Your task to perform on an android device: search for starred emails in the gmail app Image 0: 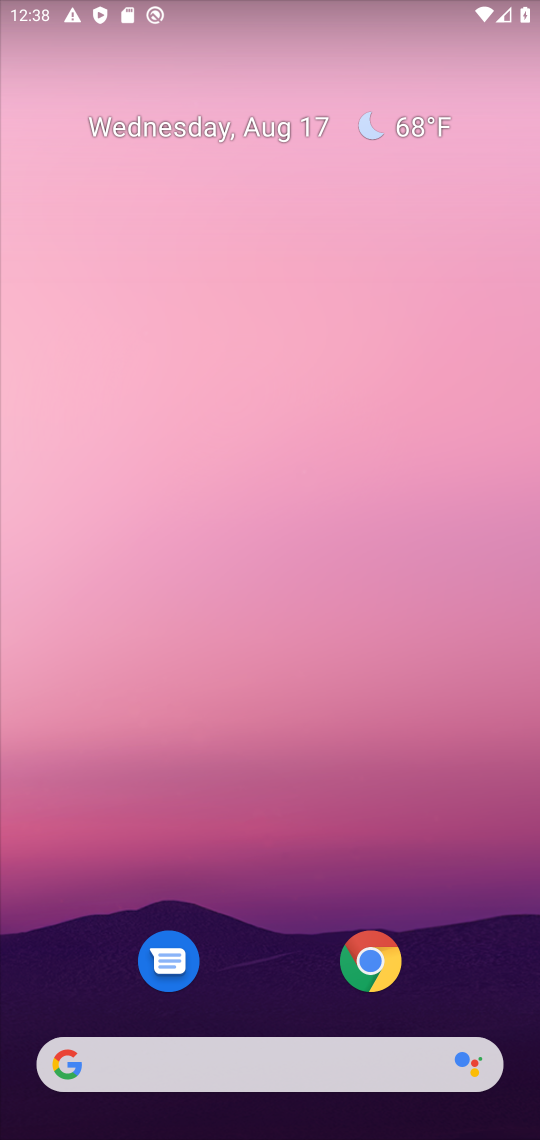
Step 0: drag from (323, 923) to (374, 335)
Your task to perform on an android device: search for starred emails in the gmail app Image 1: 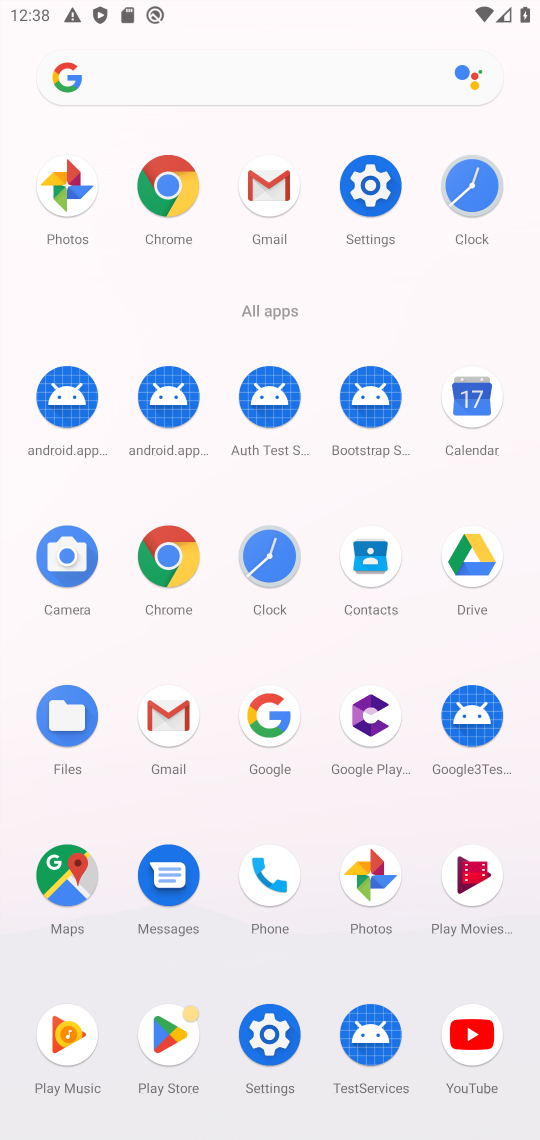
Step 1: click (190, 730)
Your task to perform on an android device: search for starred emails in the gmail app Image 2: 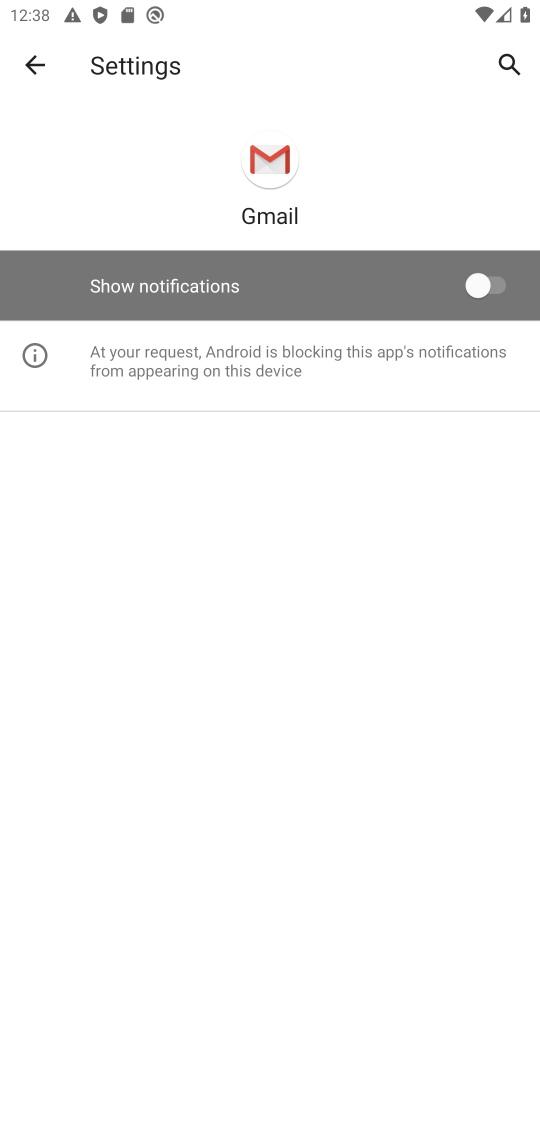
Step 2: click (35, 52)
Your task to perform on an android device: search for starred emails in the gmail app Image 3: 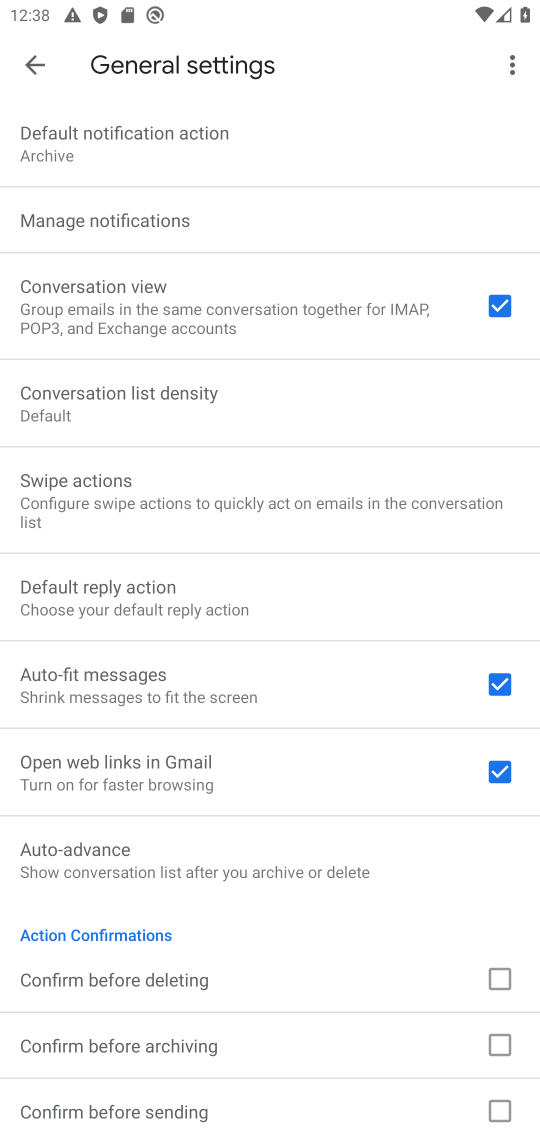
Step 3: drag from (246, 888) to (218, 601)
Your task to perform on an android device: search for starred emails in the gmail app Image 4: 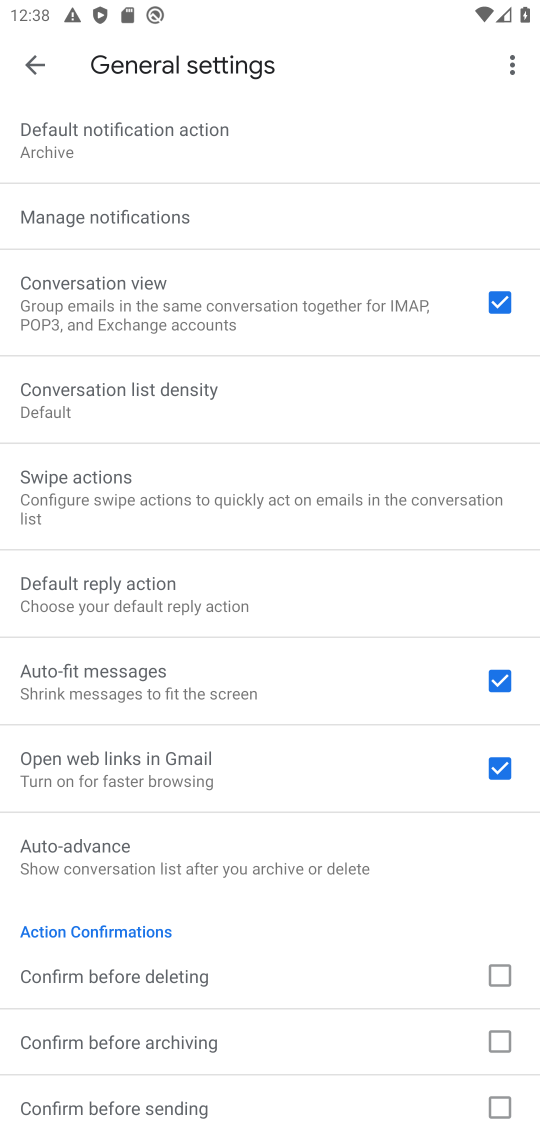
Step 4: click (36, 69)
Your task to perform on an android device: search for starred emails in the gmail app Image 5: 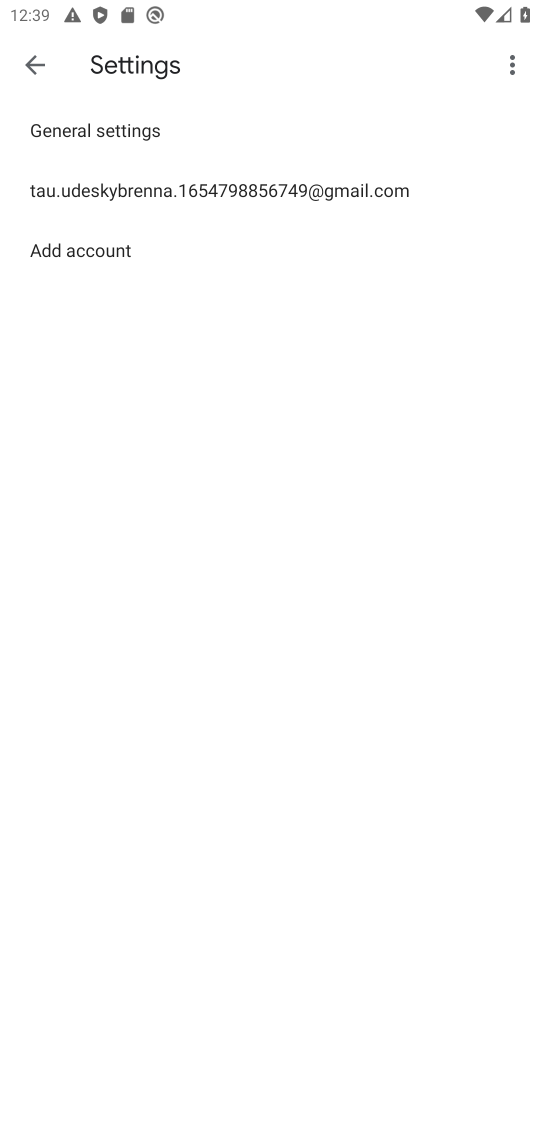
Step 5: click (29, 66)
Your task to perform on an android device: search for starred emails in the gmail app Image 6: 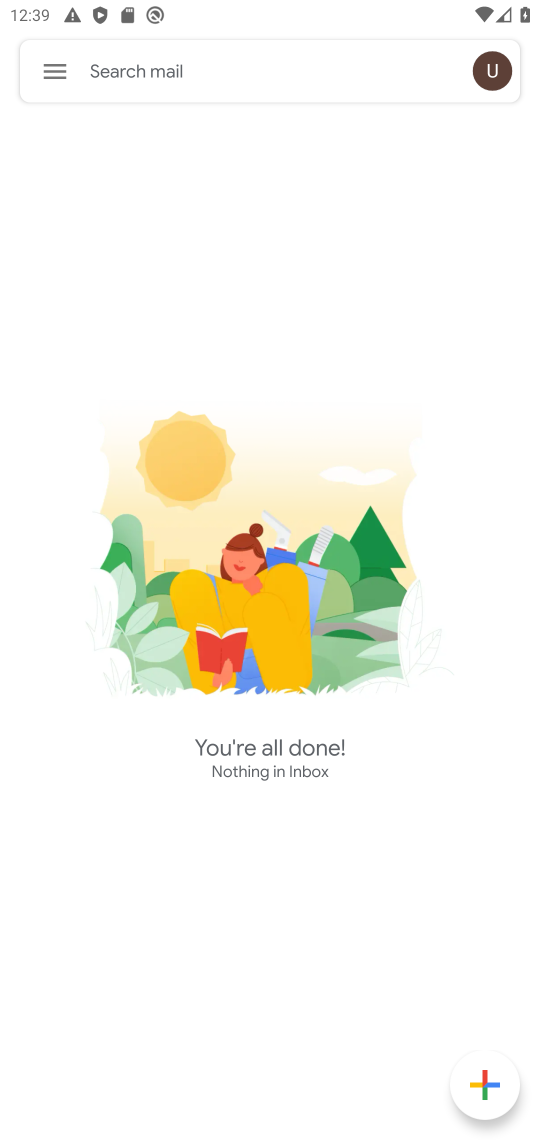
Step 6: click (63, 78)
Your task to perform on an android device: search for starred emails in the gmail app Image 7: 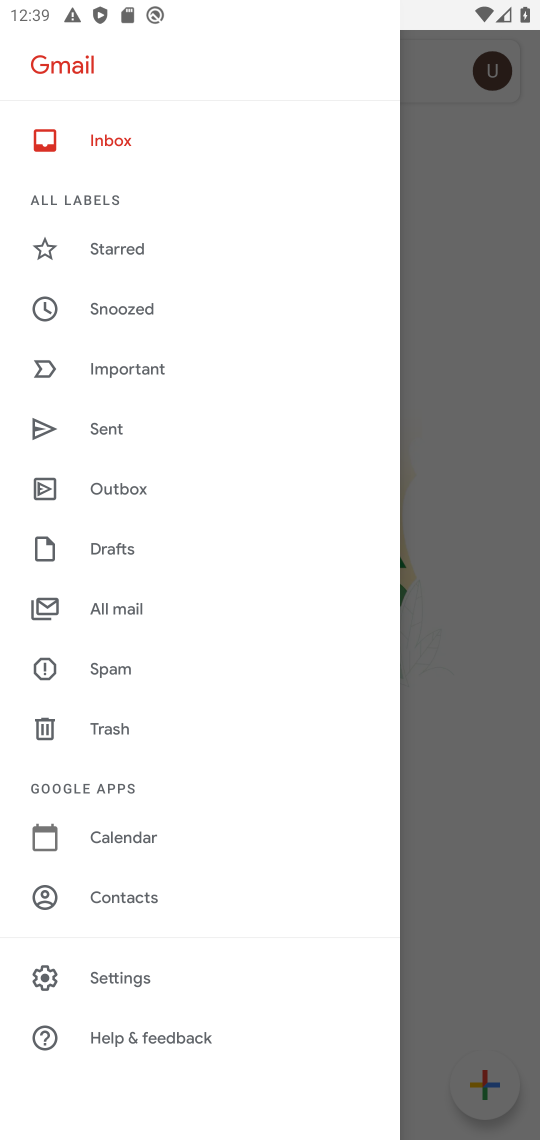
Step 7: click (157, 594)
Your task to perform on an android device: search for starred emails in the gmail app Image 8: 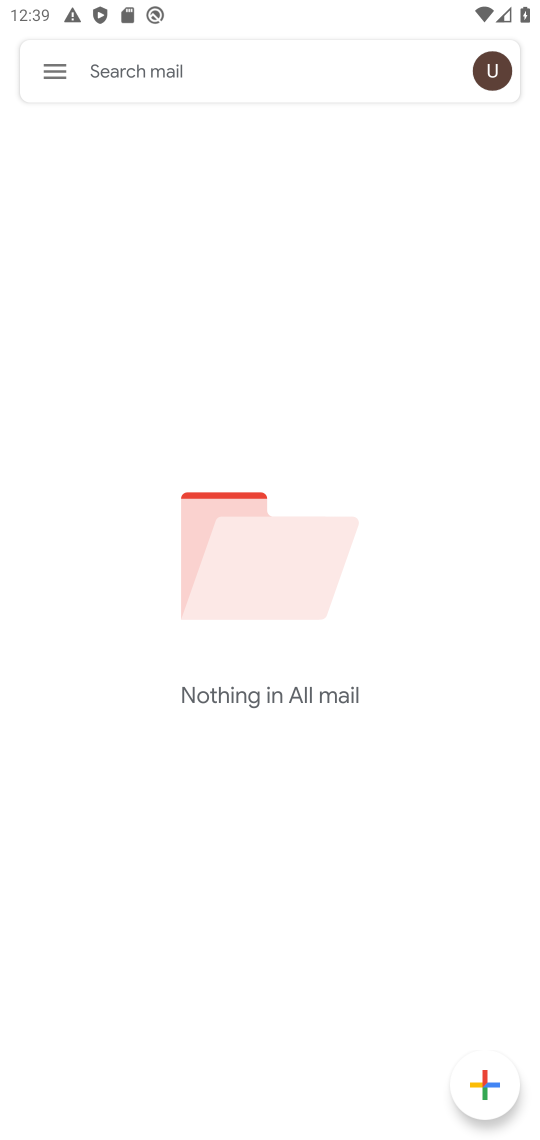
Step 8: drag from (367, 865) to (377, 566)
Your task to perform on an android device: search for starred emails in the gmail app Image 9: 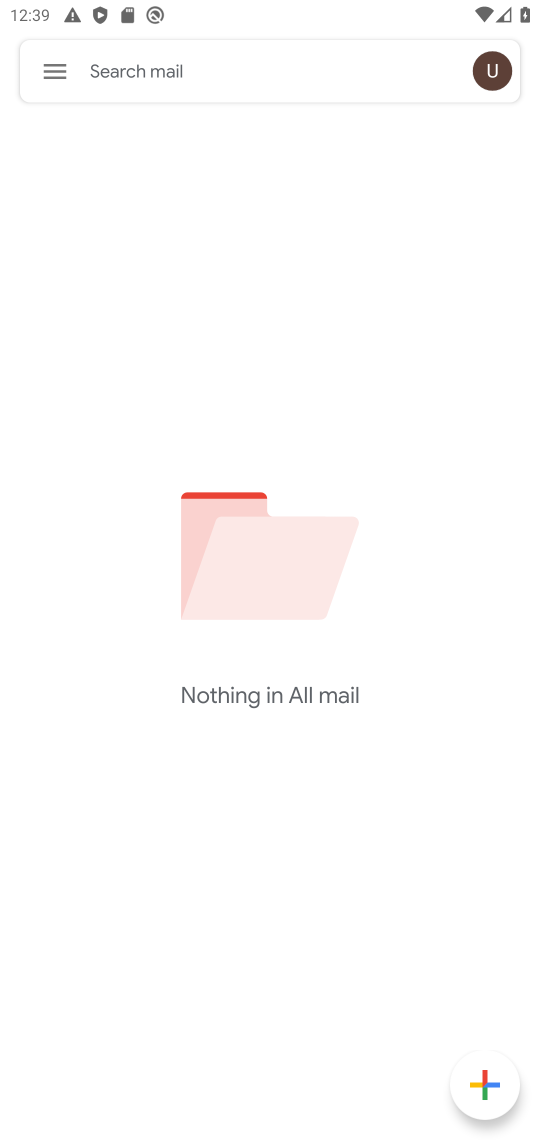
Step 9: click (60, 70)
Your task to perform on an android device: search for starred emails in the gmail app Image 10: 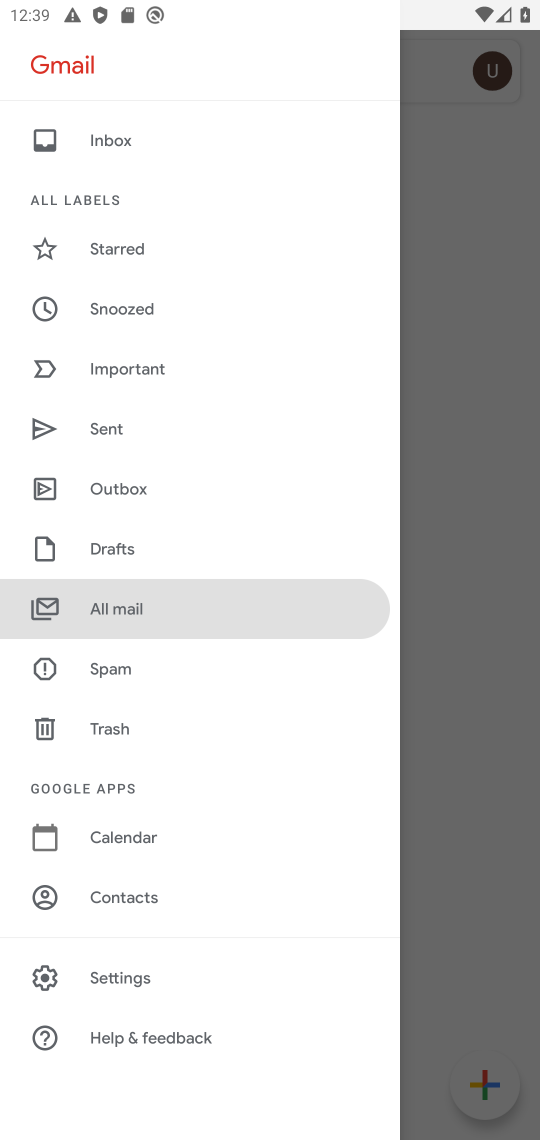
Step 10: click (145, 257)
Your task to perform on an android device: search for starred emails in the gmail app Image 11: 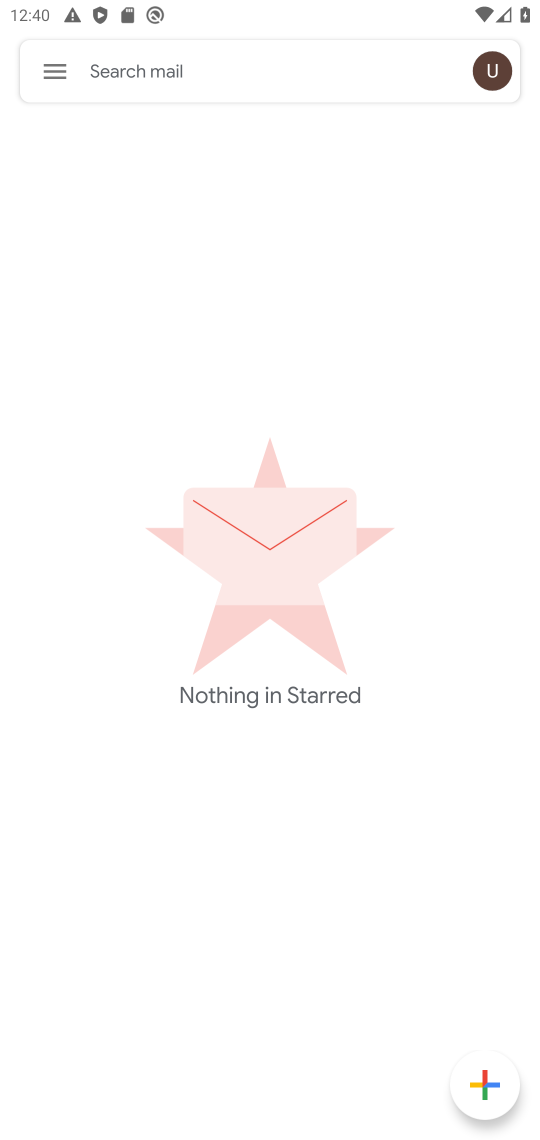
Step 11: task complete